Your task to perform on an android device: Google the capital of Chile Image 0: 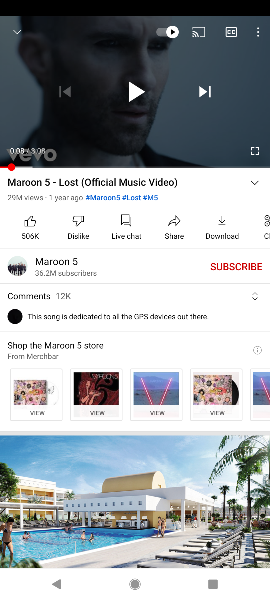
Step 0: press home button
Your task to perform on an android device: Google the capital of Chile Image 1: 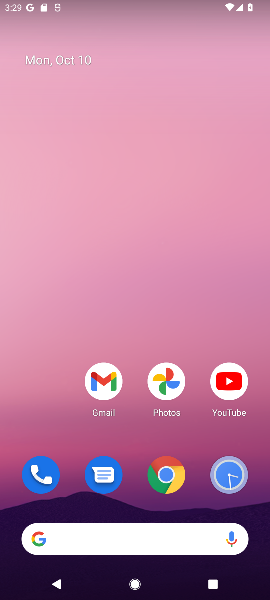
Step 1: drag from (137, 514) to (134, 197)
Your task to perform on an android device: Google the capital of Chile Image 2: 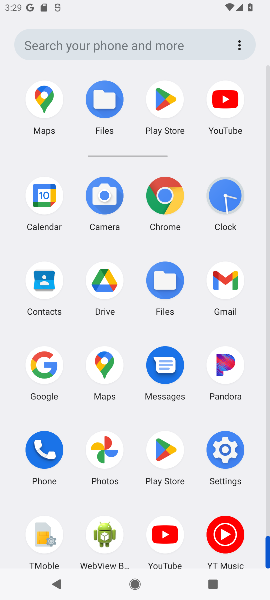
Step 2: click (56, 381)
Your task to perform on an android device: Google the capital of Chile Image 3: 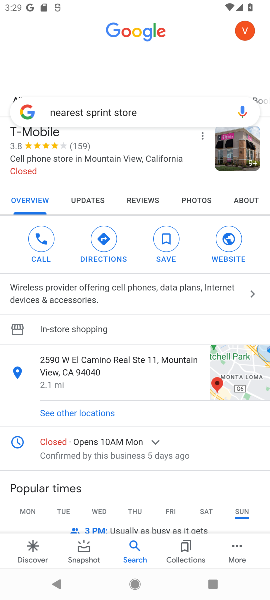
Step 3: click (205, 113)
Your task to perform on an android device: Google the capital of Chile Image 4: 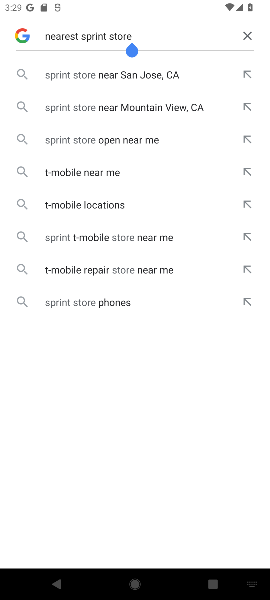
Step 4: click (248, 35)
Your task to perform on an android device: Google the capital of Chile Image 5: 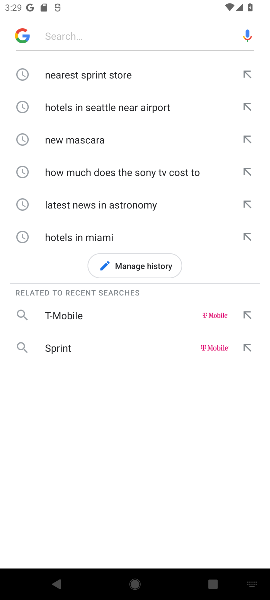
Step 5: type "capital of Chile"
Your task to perform on an android device: Google the capital of Chile Image 6: 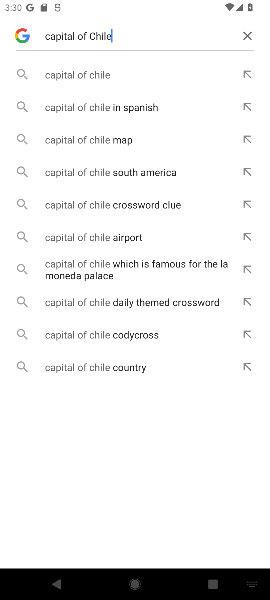
Step 6: click (97, 70)
Your task to perform on an android device: Google the capital of Chile Image 7: 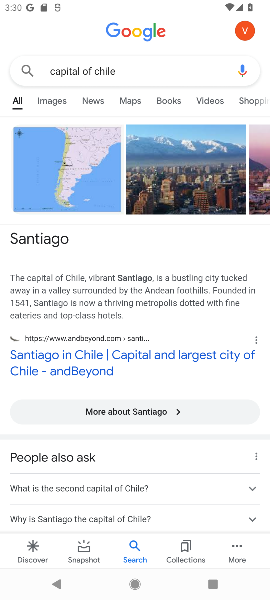
Step 7: task complete